Your task to perform on an android device: Go to Amazon Image 0: 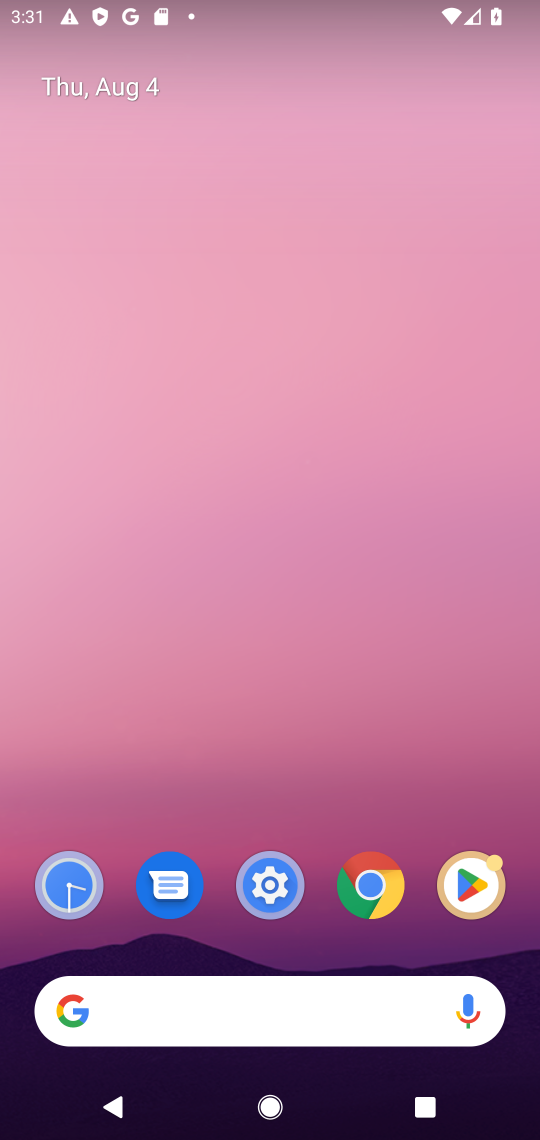
Step 0: click (367, 899)
Your task to perform on an android device: Go to Amazon Image 1: 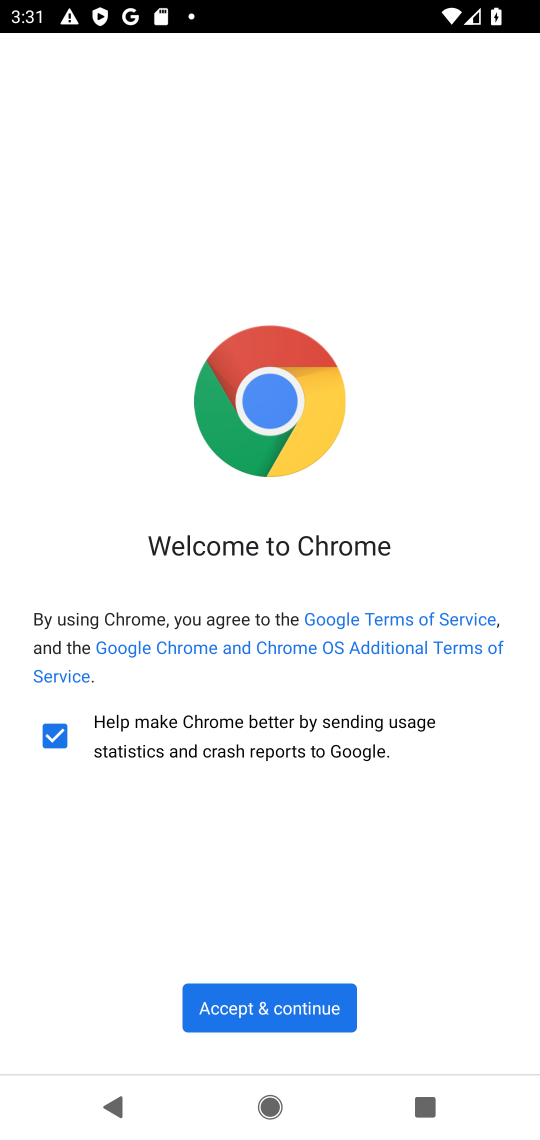
Step 1: click (251, 1013)
Your task to perform on an android device: Go to Amazon Image 2: 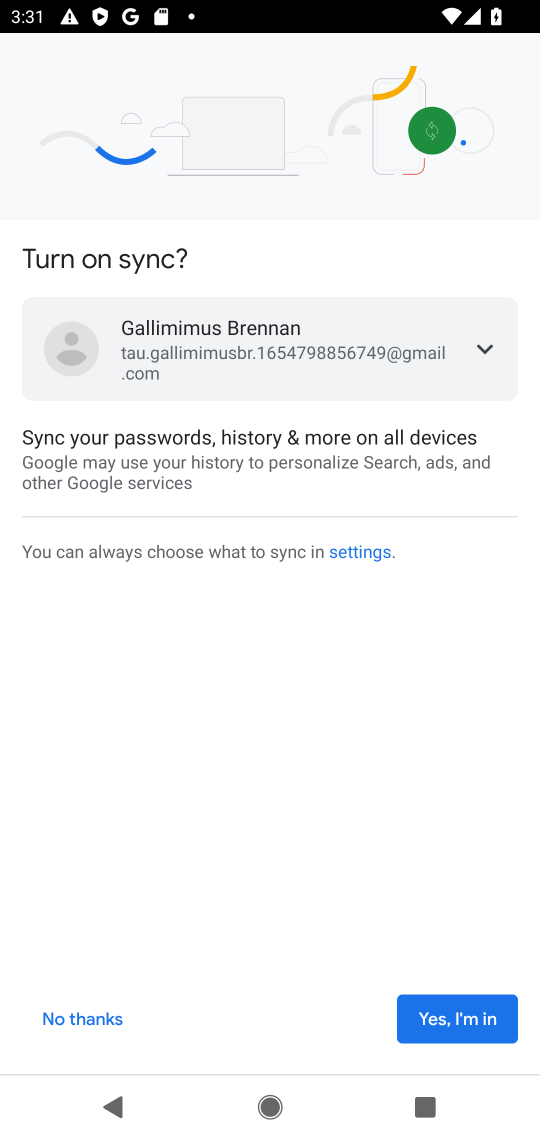
Step 2: click (476, 1023)
Your task to perform on an android device: Go to Amazon Image 3: 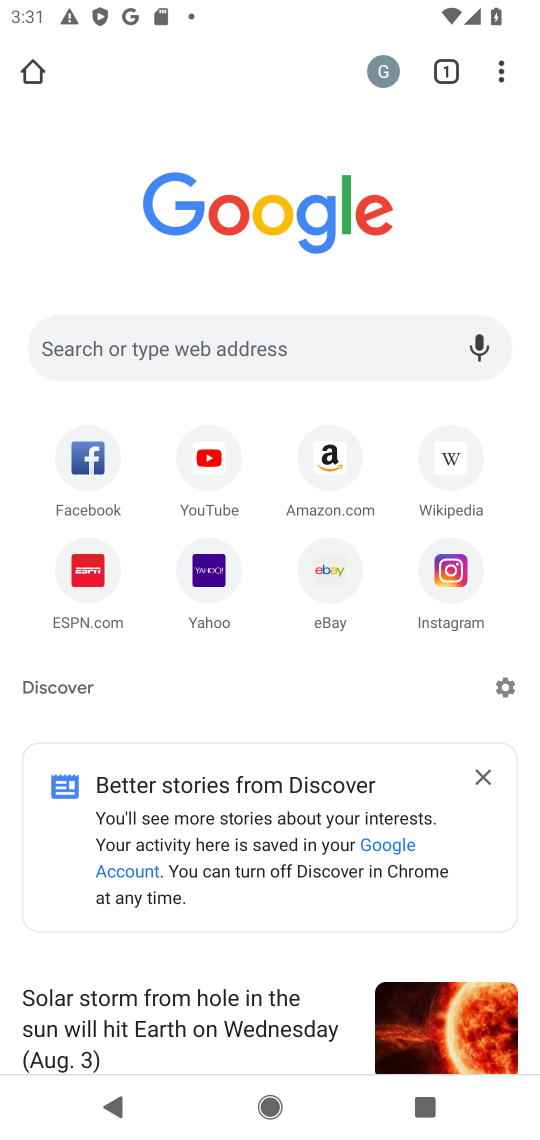
Step 3: click (327, 450)
Your task to perform on an android device: Go to Amazon Image 4: 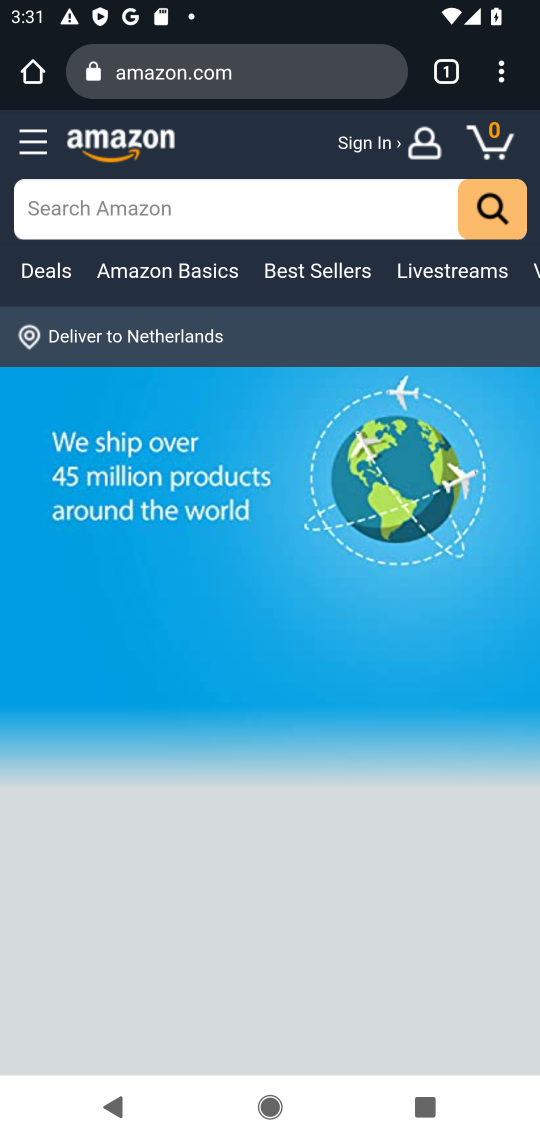
Step 4: task complete